Your task to perform on an android device: install app "Google Chat" Image 0: 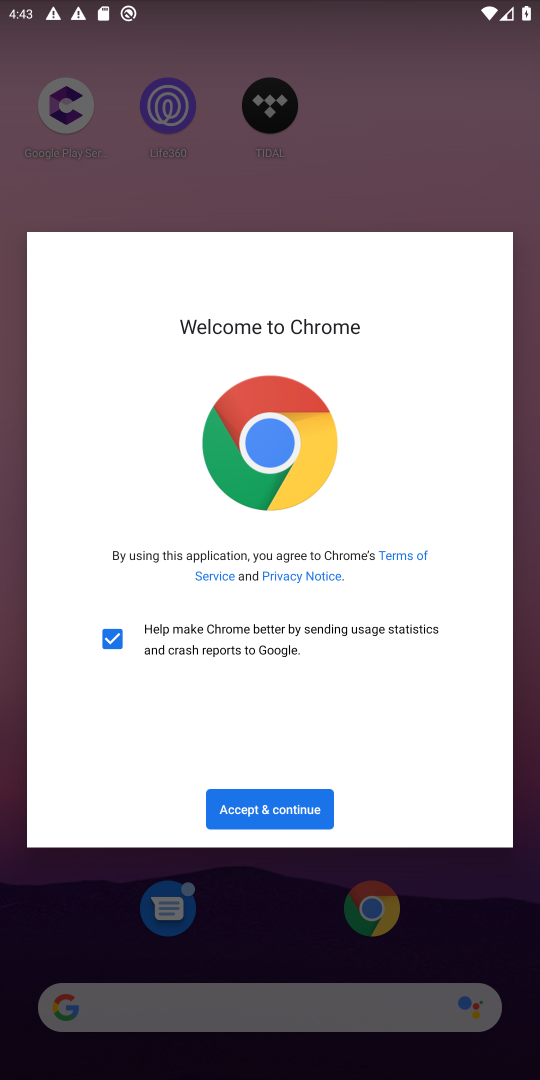
Step 0: press home button
Your task to perform on an android device: install app "Google Chat" Image 1: 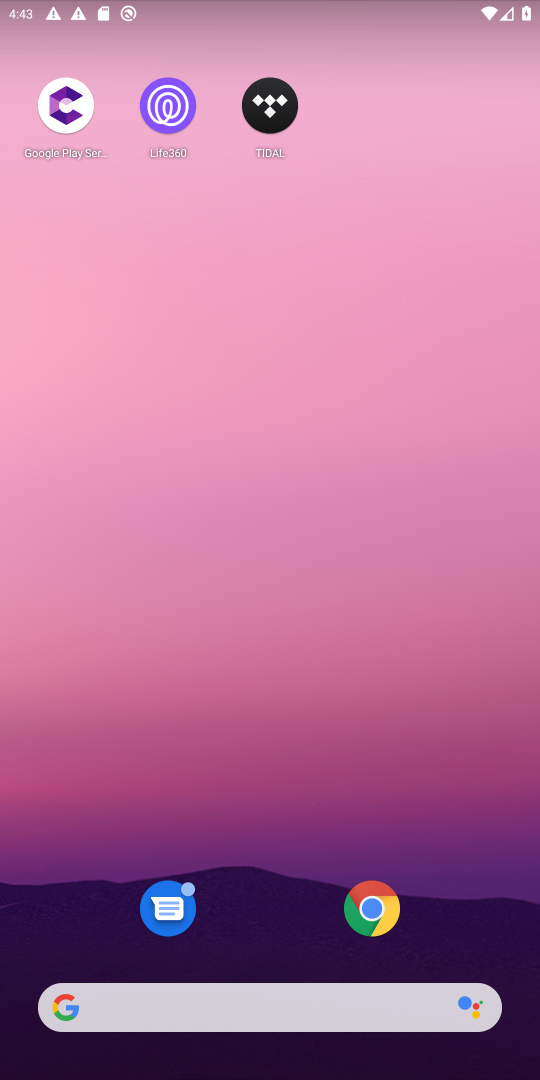
Step 1: drag from (233, 798) to (213, 115)
Your task to perform on an android device: install app "Google Chat" Image 2: 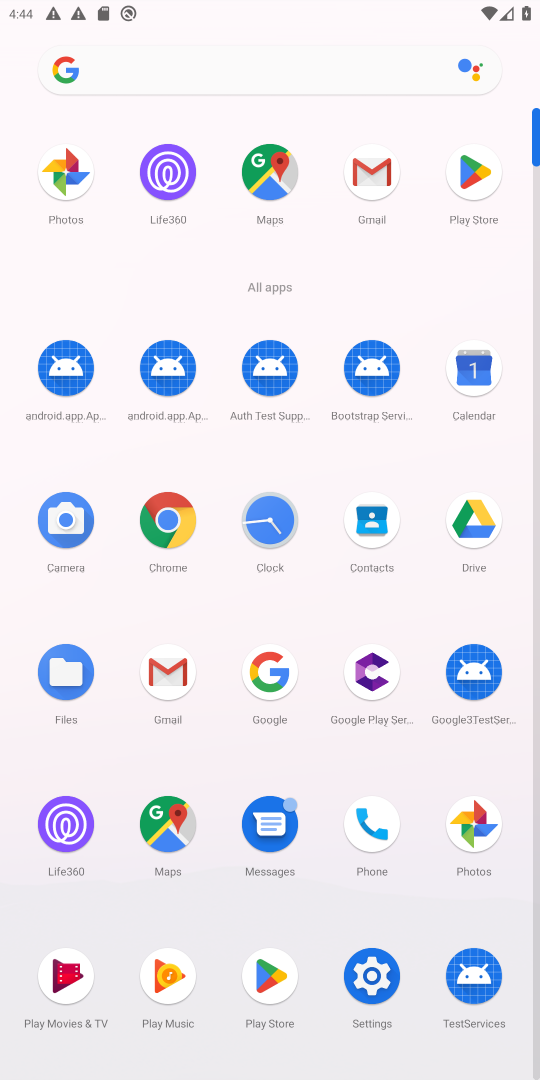
Step 2: click (180, 982)
Your task to perform on an android device: install app "Google Chat" Image 3: 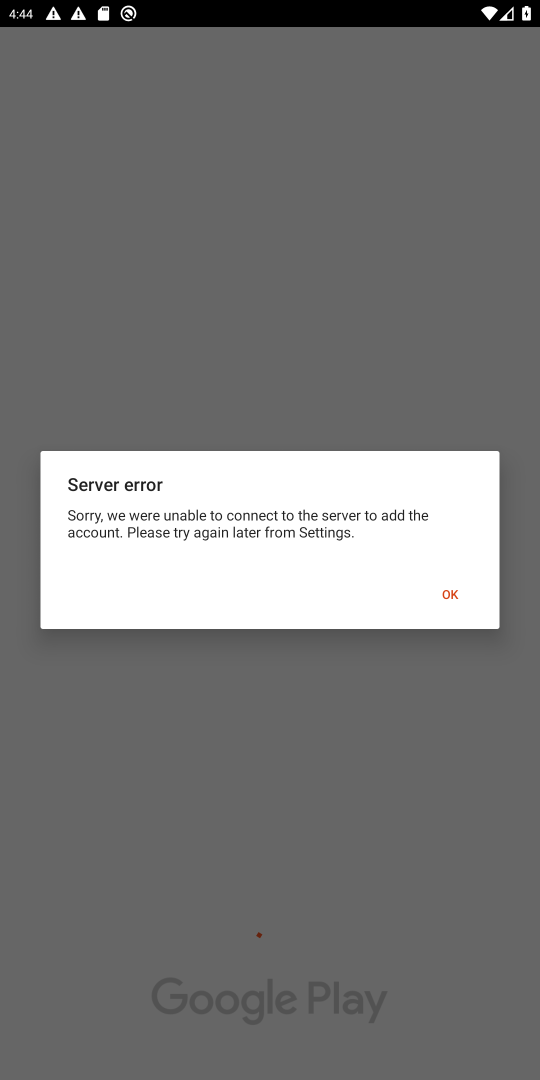
Step 3: press back button
Your task to perform on an android device: install app "Google Chat" Image 4: 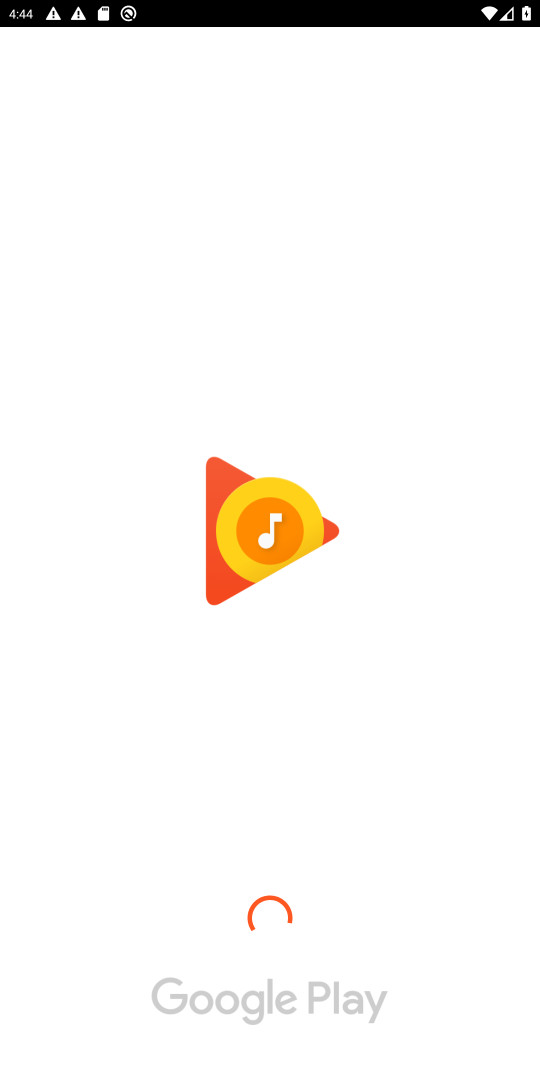
Step 4: press back button
Your task to perform on an android device: install app "Google Chat" Image 5: 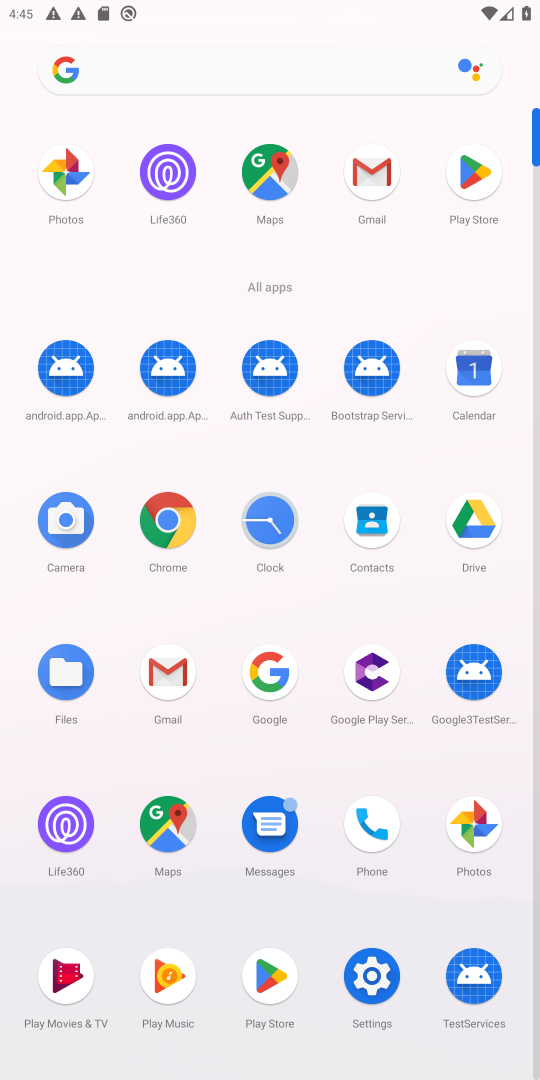
Step 5: click (467, 172)
Your task to perform on an android device: install app "Google Chat" Image 6: 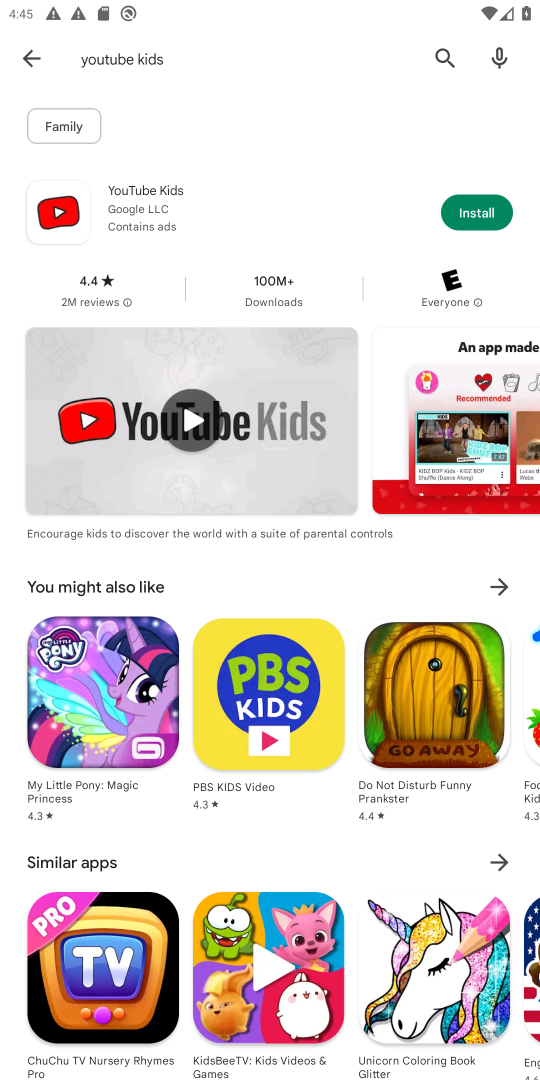
Step 6: click (24, 50)
Your task to perform on an android device: install app "Google Chat" Image 7: 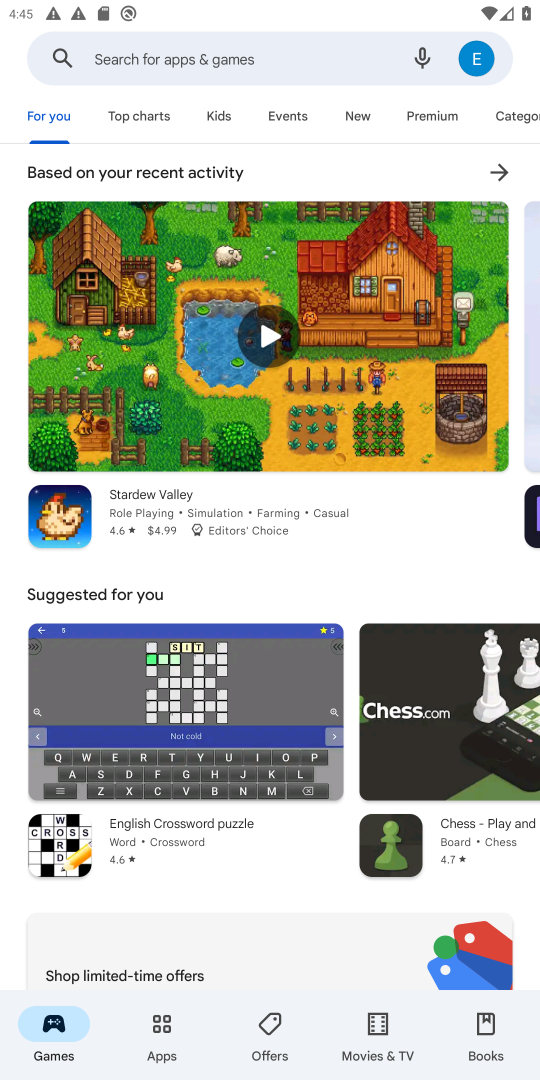
Step 7: click (109, 50)
Your task to perform on an android device: install app "Google Chat" Image 8: 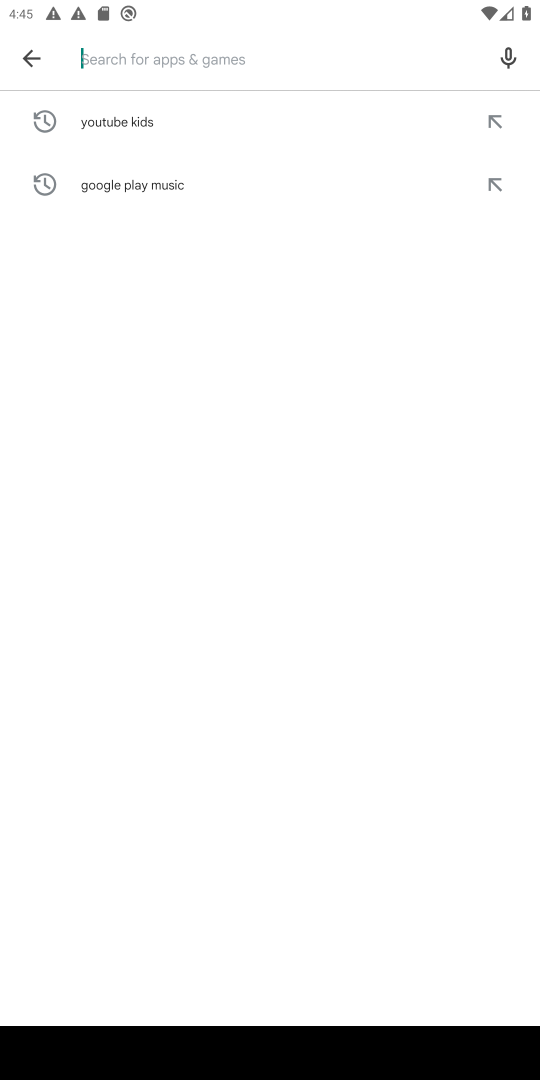
Step 8: type "Google Chat"
Your task to perform on an android device: install app "Google Chat" Image 9: 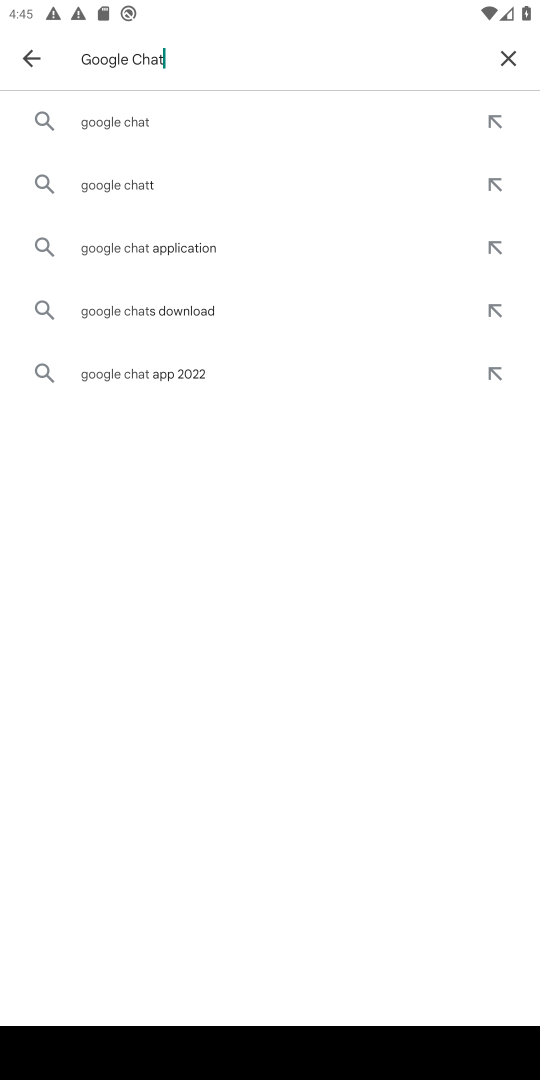
Step 9: click (114, 122)
Your task to perform on an android device: install app "Google Chat" Image 10: 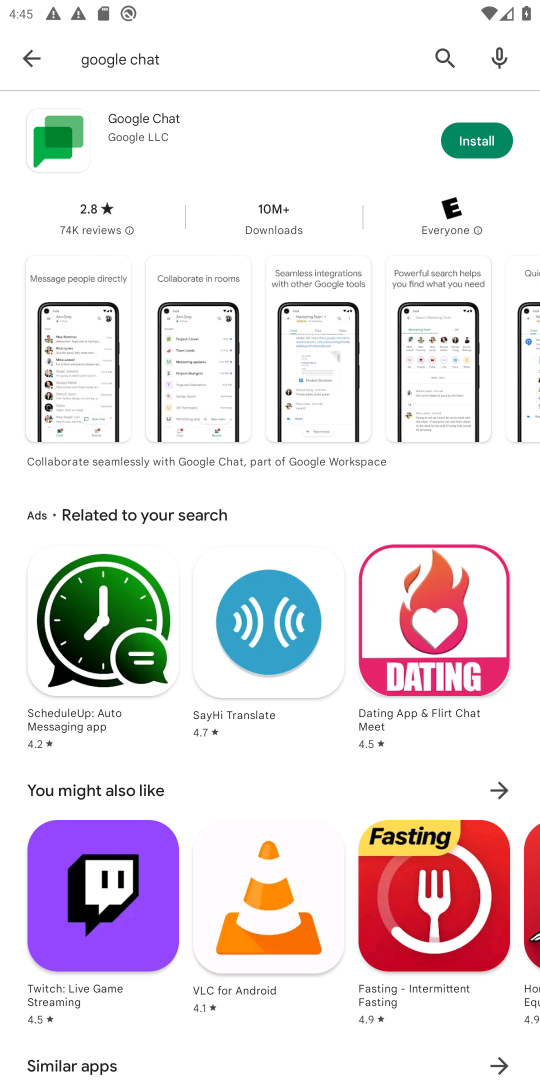
Step 10: click (483, 140)
Your task to perform on an android device: install app "Google Chat" Image 11: 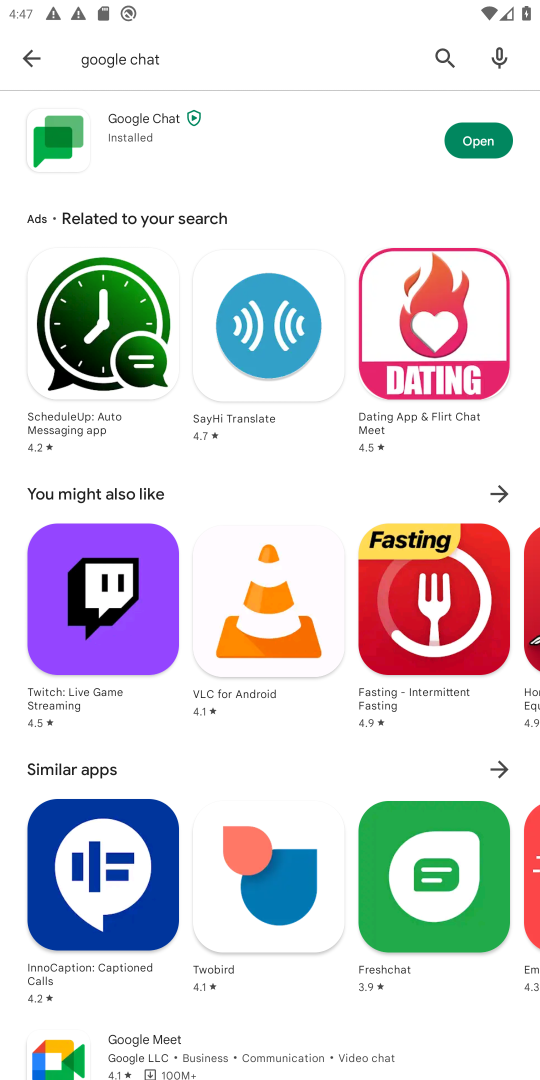
Step 11: click (473, 138)
Your task to perform on an android device: install app "Google Chat" Image 12: 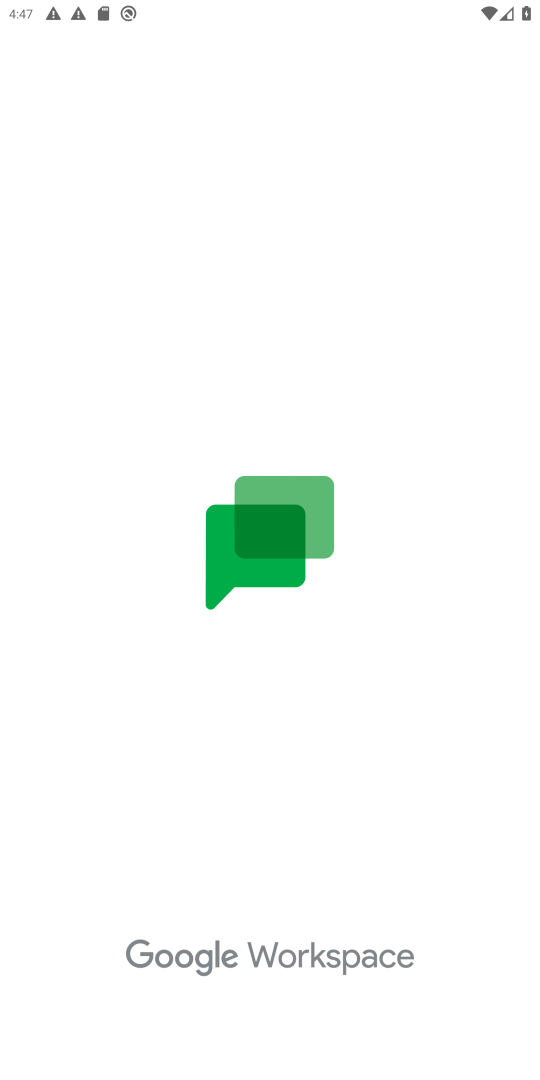
Step 12: task complete